Your task to perform on an android device: delete a single message in the gmail app Image 0: 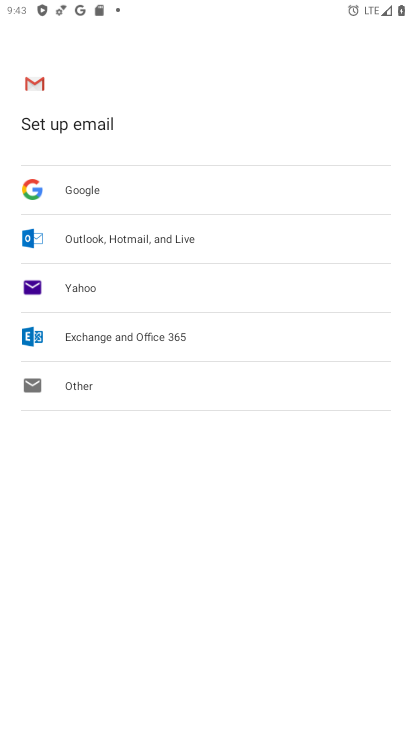
Step 0: press home button
Your task to perform on an android device: delete a single message in the gmail app Image 1: 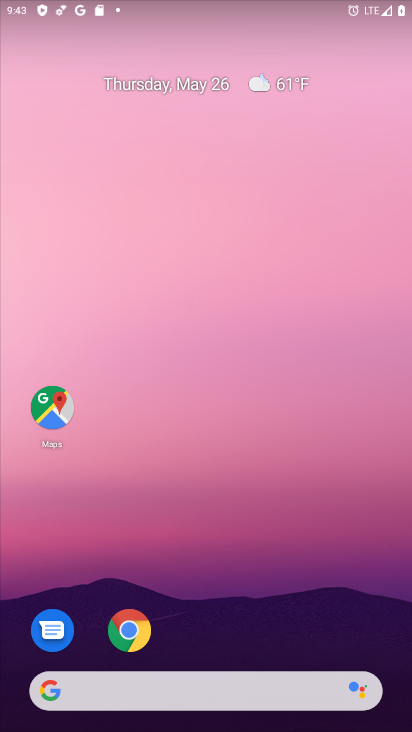
Step 1: drag from (188, 666) to (395, 12)
Your task to perform on an android device: delete a single message in the gmail app Image 2: 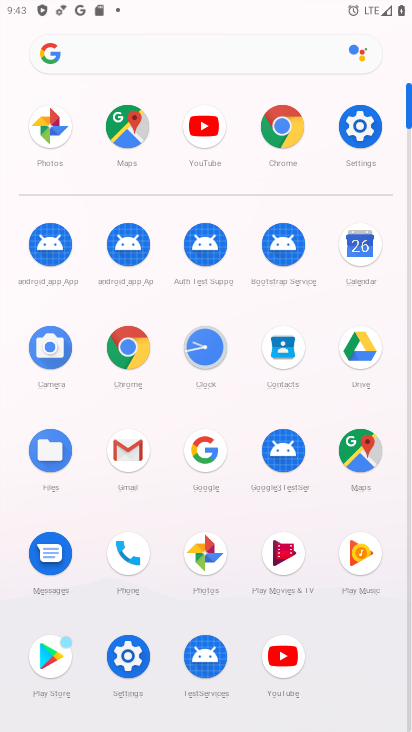
Step 2: click (141, 462)
Your task to perform on an android device: delete a single message in the gmail app Image 3: 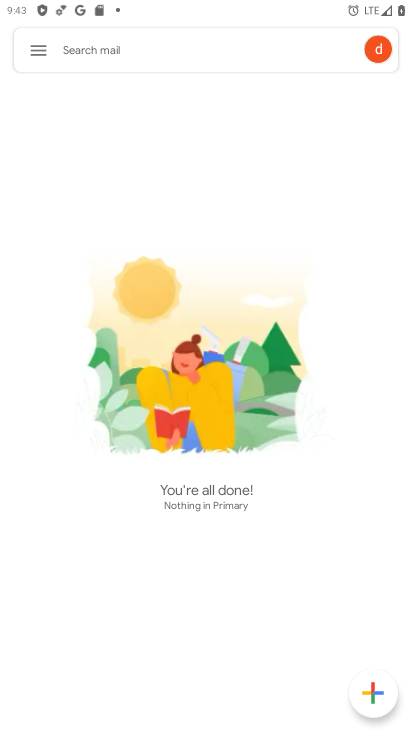
Step 3: task complete